Your task to perform on an android device: Open eBay Image 0: 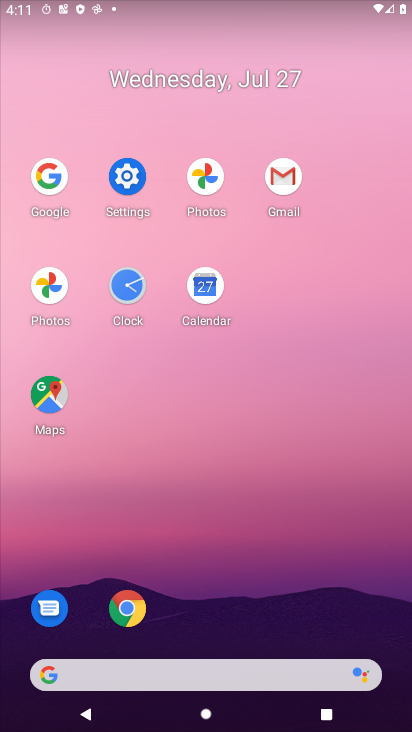
Step 0: click (131, 604)
Your task to perform on an android device: Open eBay Image 1: 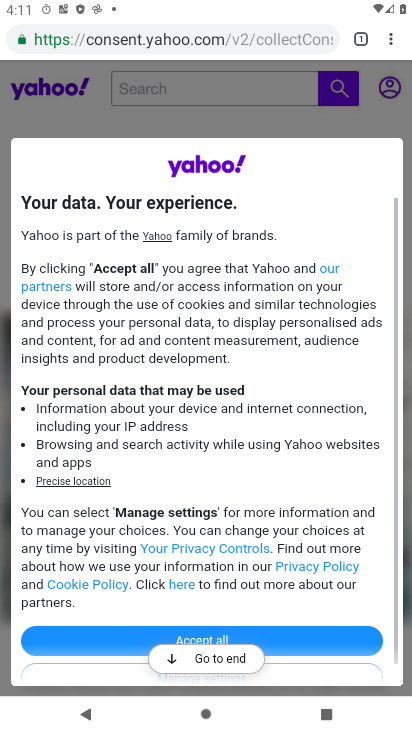
Step 1: click (364, 44)
Your task to perform on an android device: Open eBay Image 2: 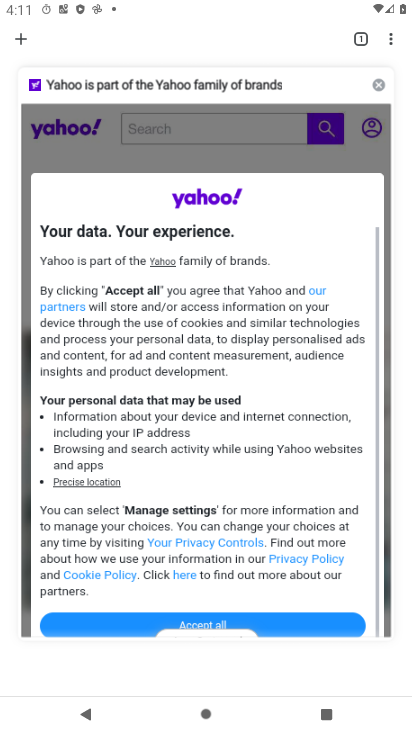
Step 2: click (25, 39)
Your task to perform on an android device: Open eBay Image 3: 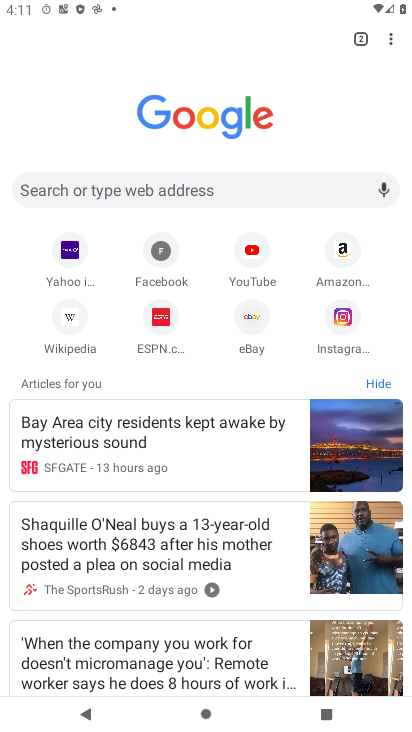
Step 3: click (245, 318)
Your task to perform on an android device: Open eBay Image 4: 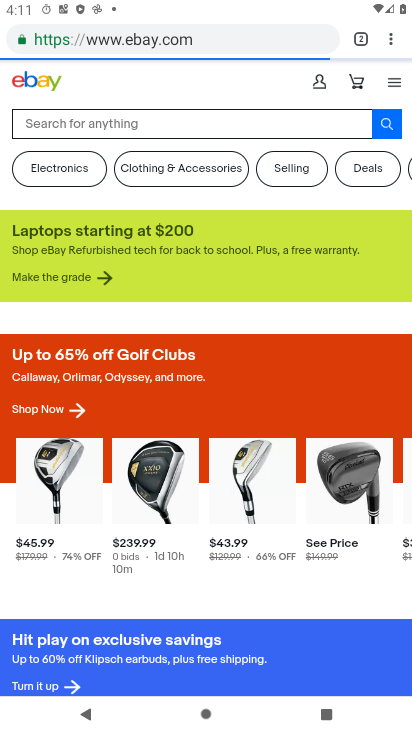
Step 4: task complete